Your task to perform on an android device: Search for usb-c to usb-b on walmart.com, select the first entry, add it to the cart, then select checkout. Image 0: 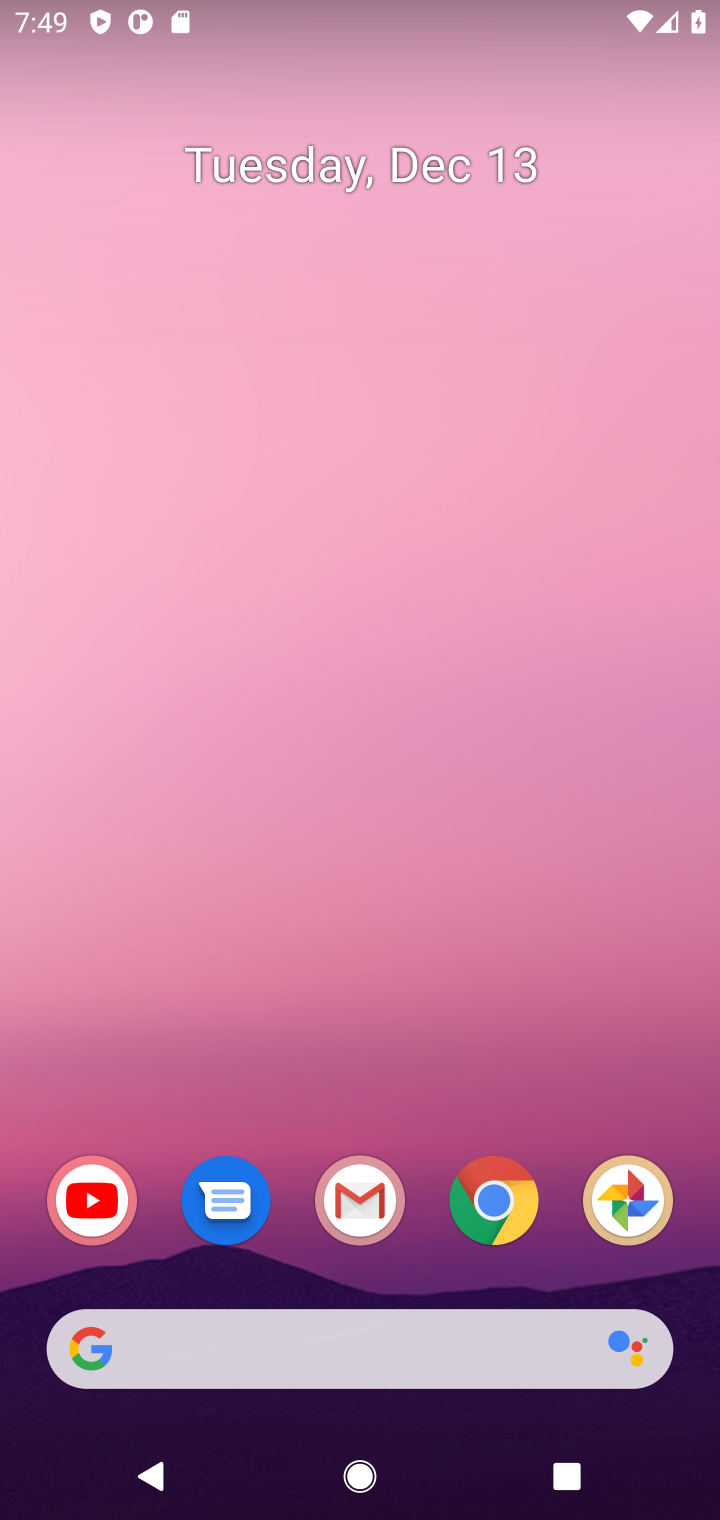
Step 0: click (346, 1347)
Your task to perform on an android device: Search for usb-c to usb-b on walmart.com, select the first entry, add it to the cart, then select checkout. Image 1: 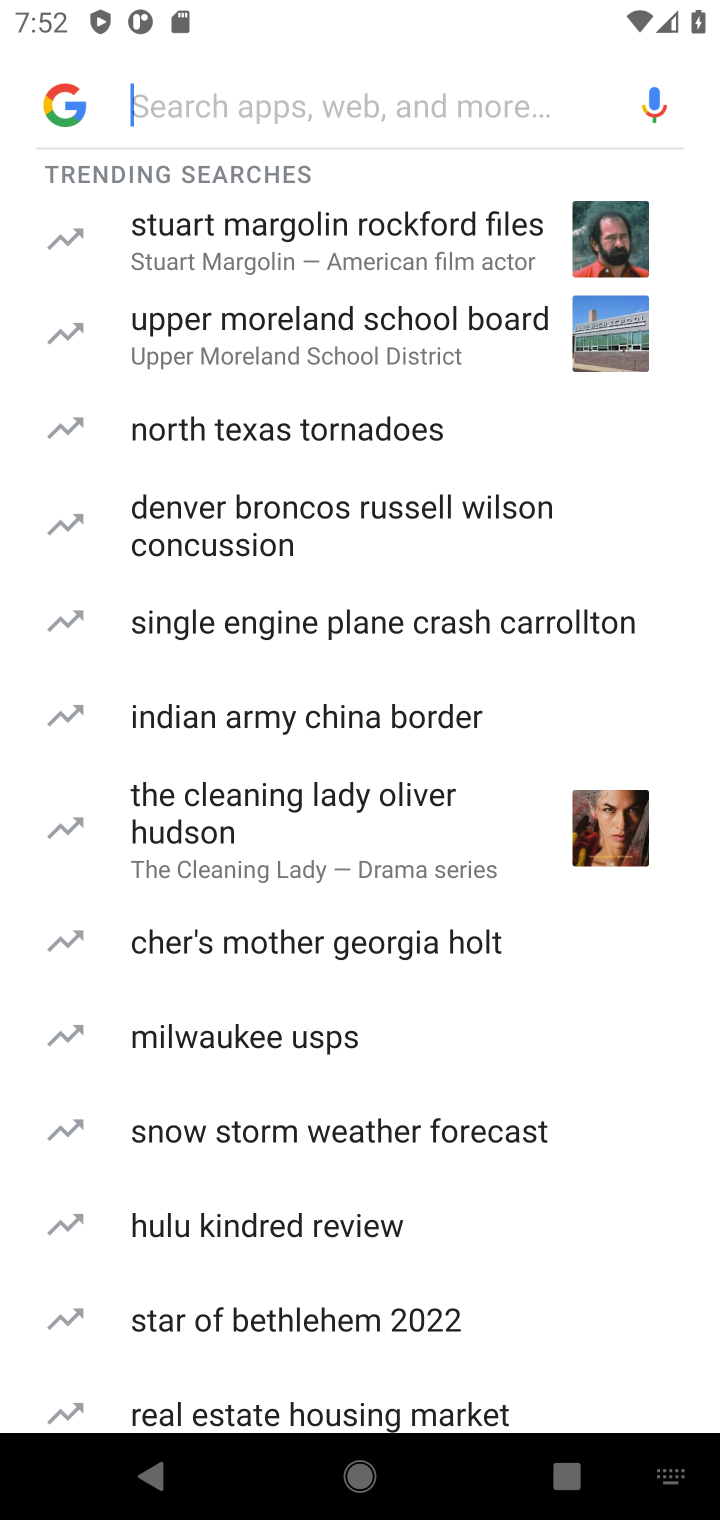
Step 1: type "walmart.com"
Your task to perform on an android device: Search for usb-c to usb-b on walmart.com, select the first entry, add it to the cart, then select checkout. Image 2: 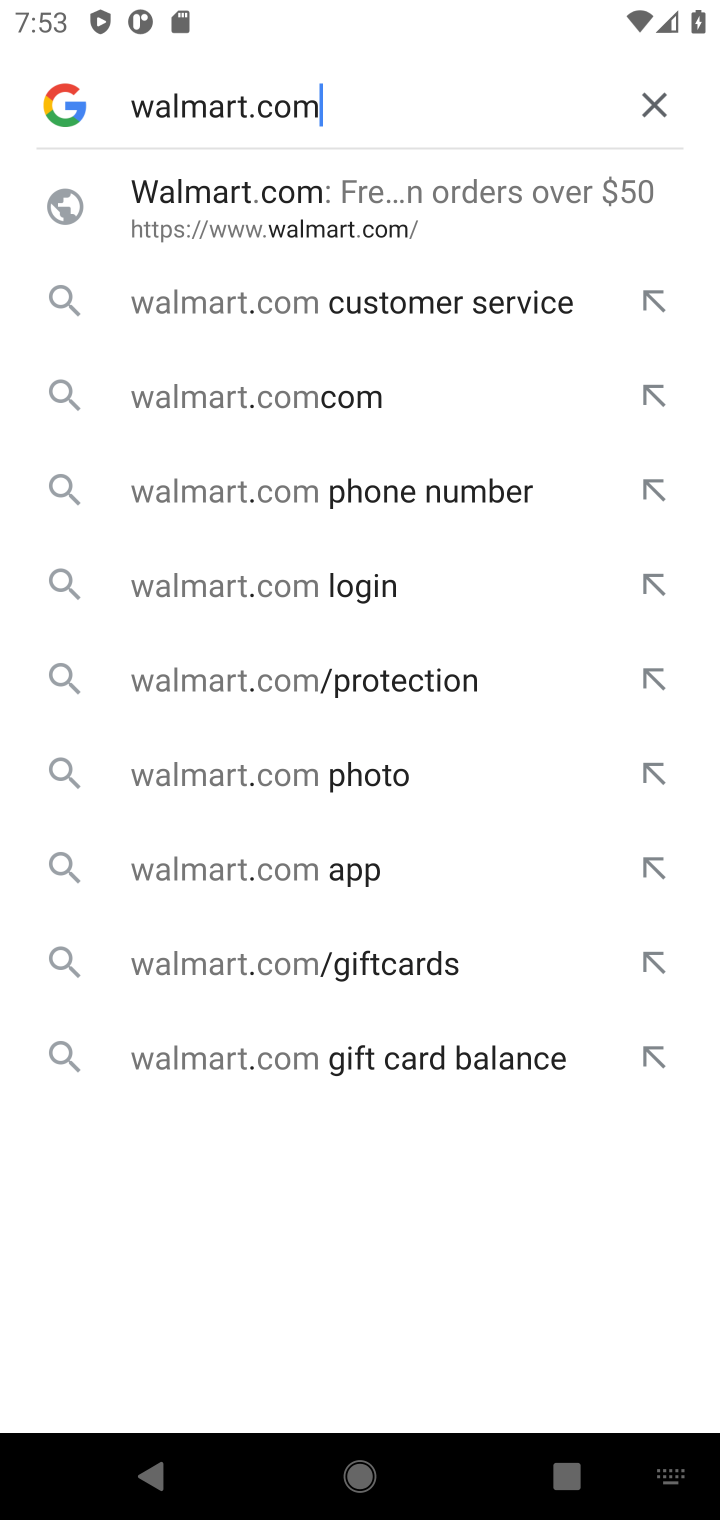
Step 2: click (363, 194)
Your task to perform on an android device: Search for usb-c to usb-b on walmart.com, select the first entry, add it to the cart, then select checkout. Image 3: 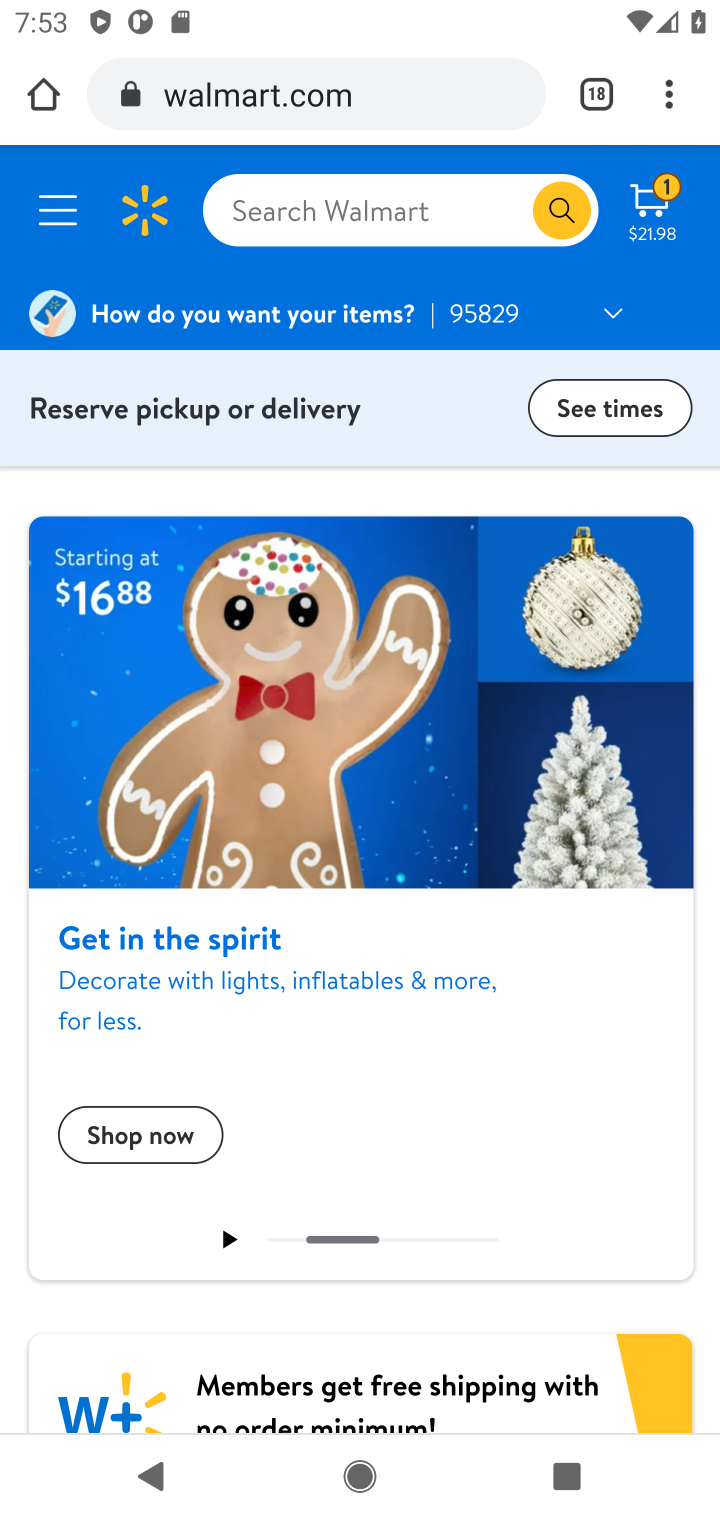
Step 3: click (409, 184)
Your task to perform on an android device: Search for usb-c to usb-b on walmart.com, select the first entry, add it to the cart, then select checkout. Image 4: 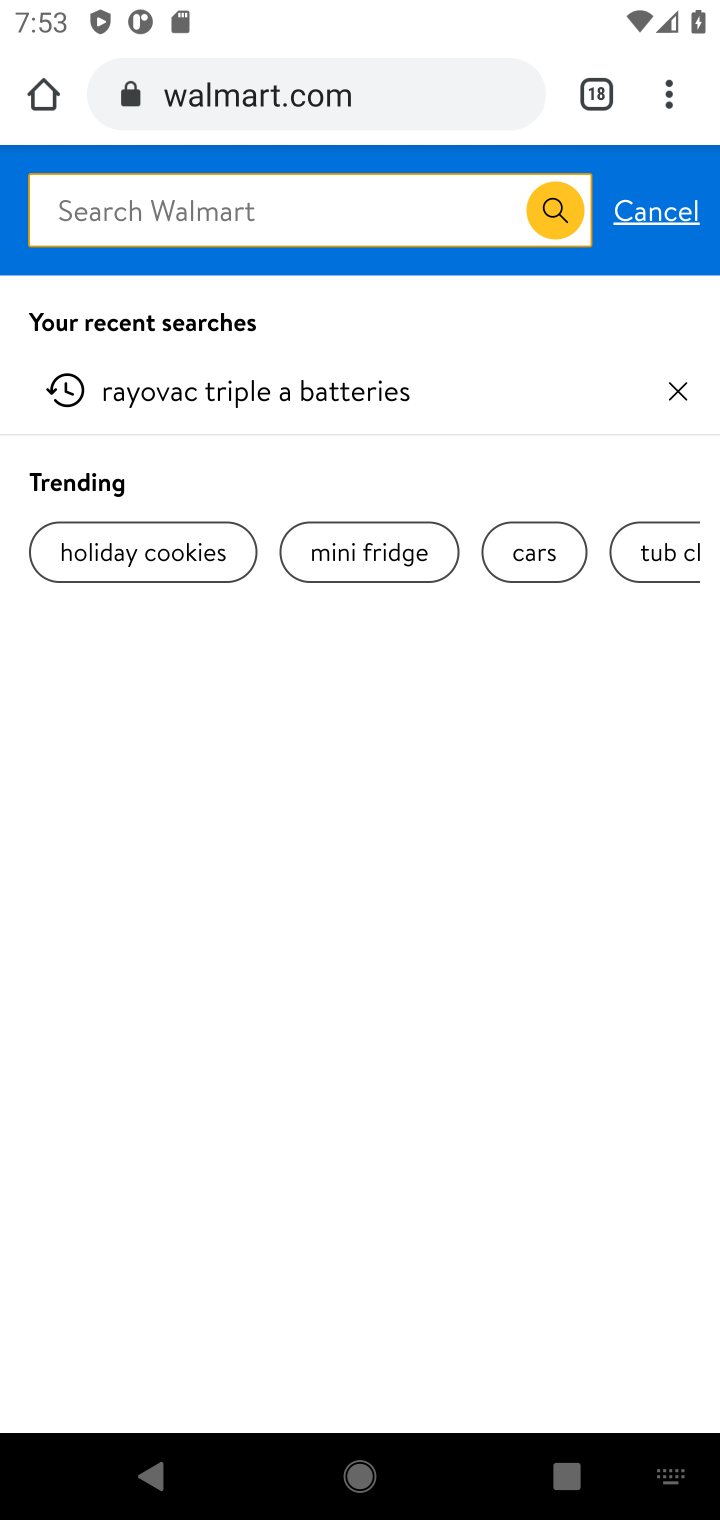
Step 4: type "usb-b "
Your task to perform on an android device: Search for usb-c to usb-b on walmart.com, select the first entry, add it to the cart, then select checkout. Image 5: 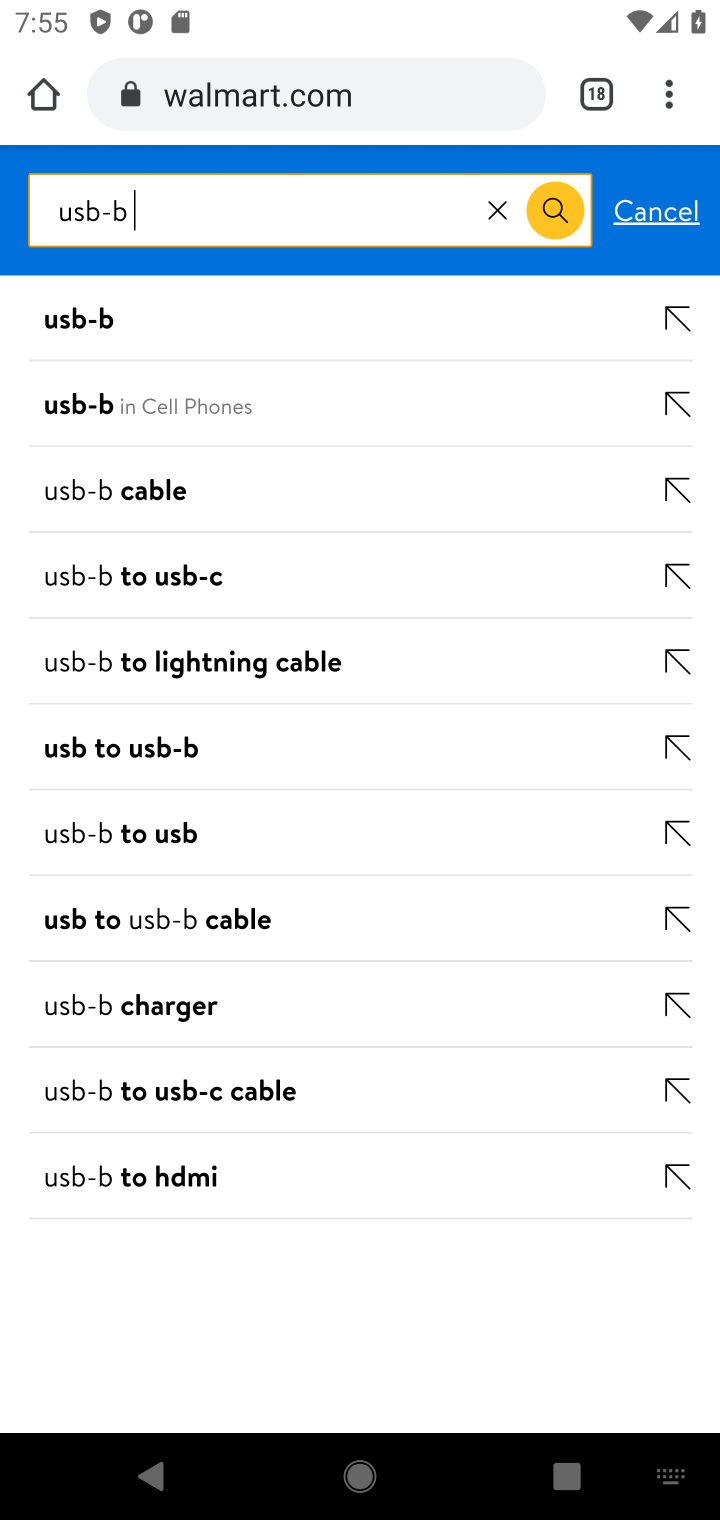
Step 5: click (493, 203)
Your task to perform on an android device: Search for usb-c to usb-b on walmart.com, select the first entry, add it to the cart, then select checkout. Image 6: 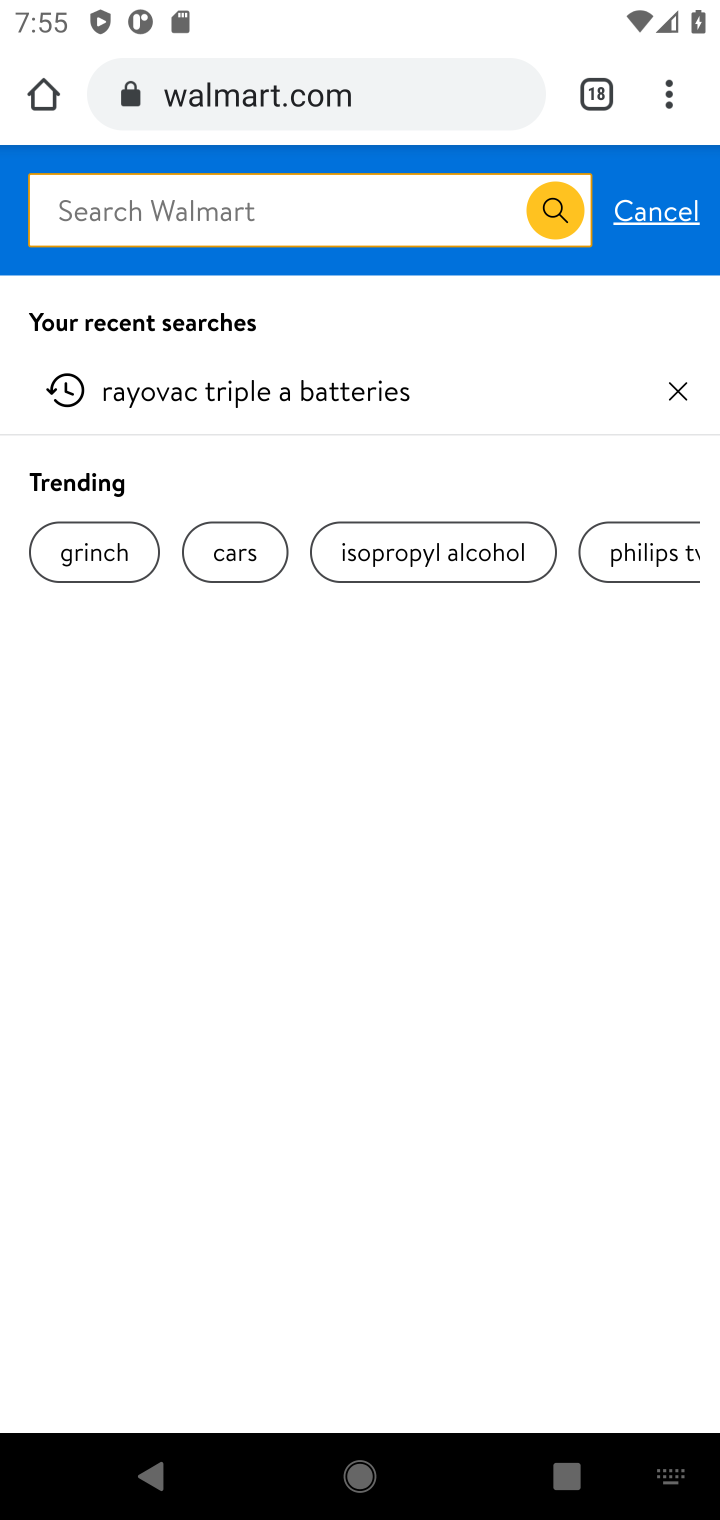
Step 6: click (387, 203)
Your task to perform on an android device: Search for usb-c to usb-b on walmart.com, select the first entry, add it to the cart, then select checkout. Image 7: 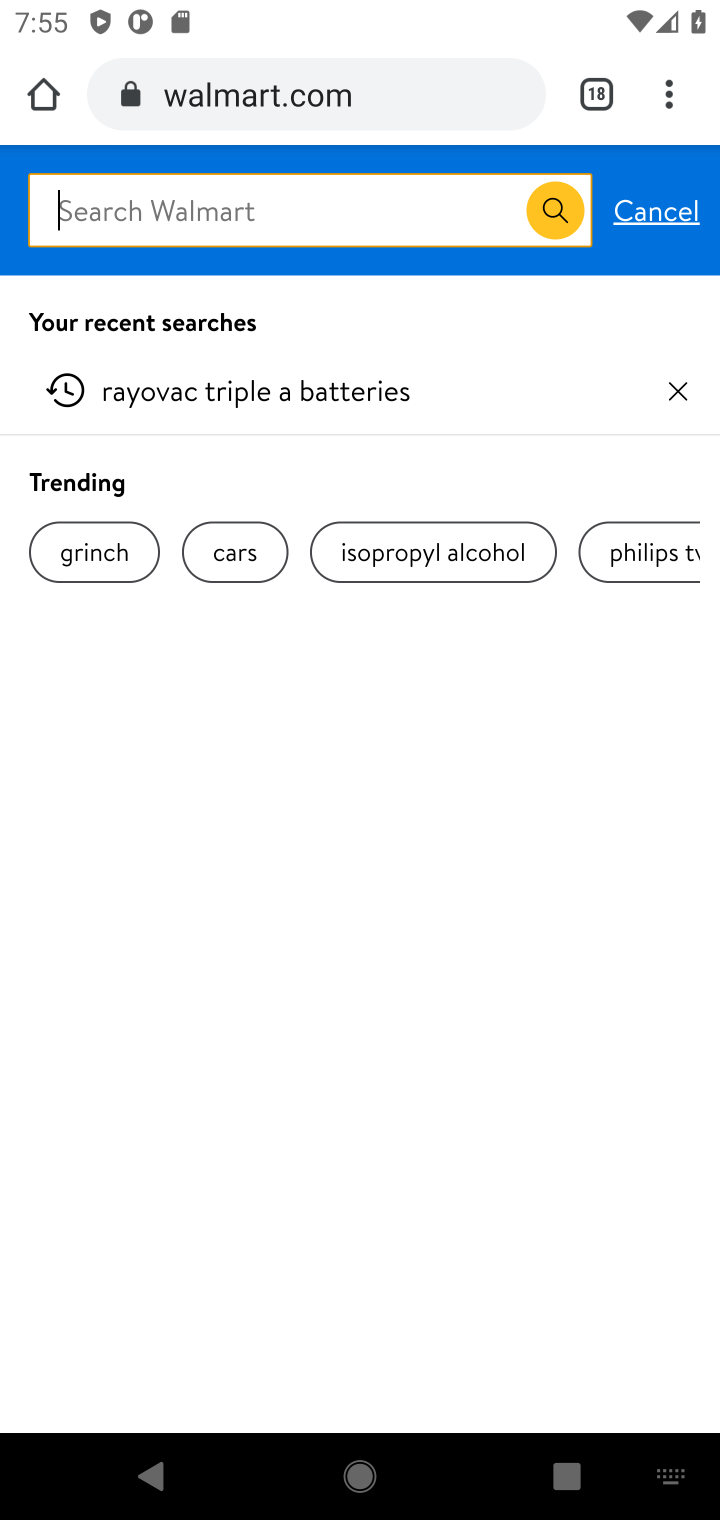
Step 7: type "usb-c to usb-b"
Your task to perform on an android device: Search for usb-c to usb-b on walmart.com, select the first entry, add it to the cart, then select checkout. Image 8: 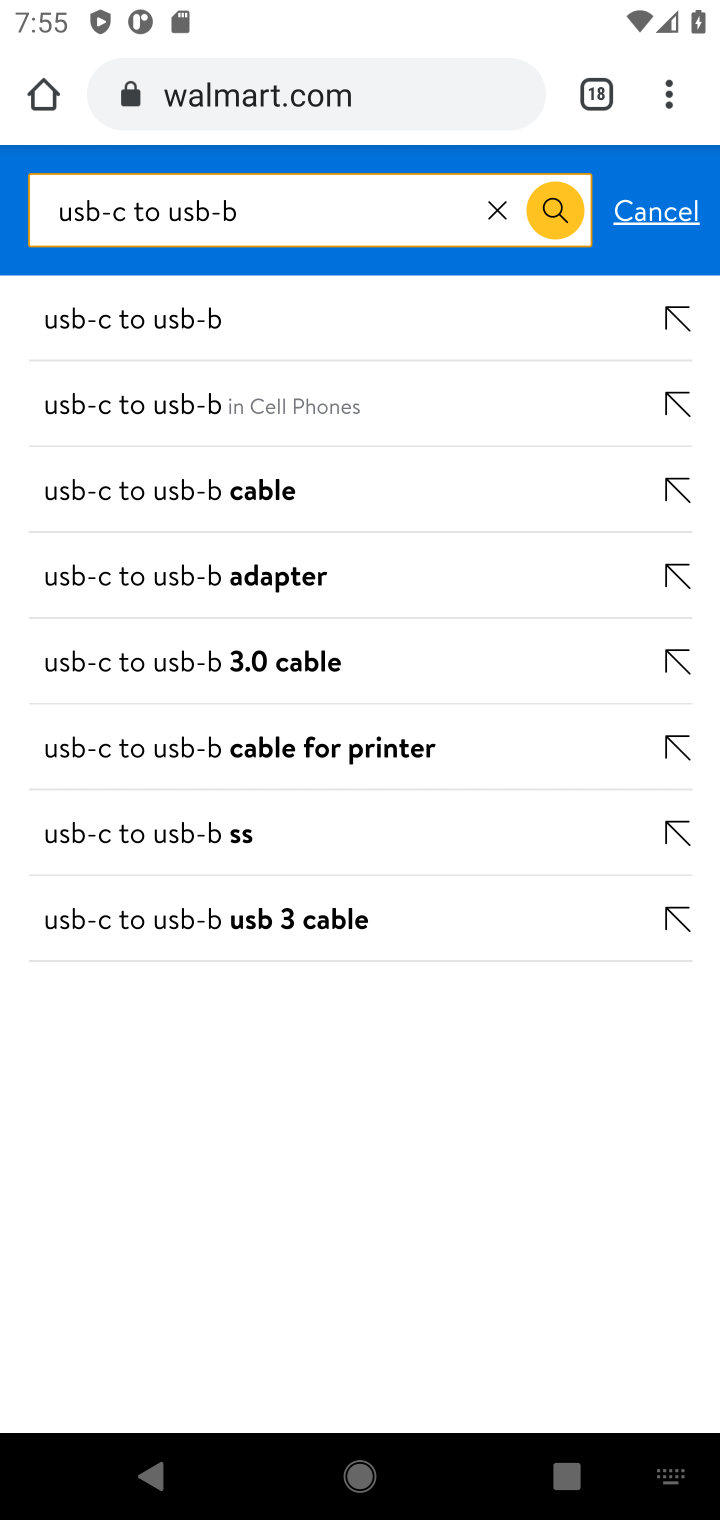
Step 8: click (213, 320)
Your task to perform on an android device: Search for usb-c to usb-b on walmart.com, select the first entry, add it to the cart, then select checkout. Image 9: 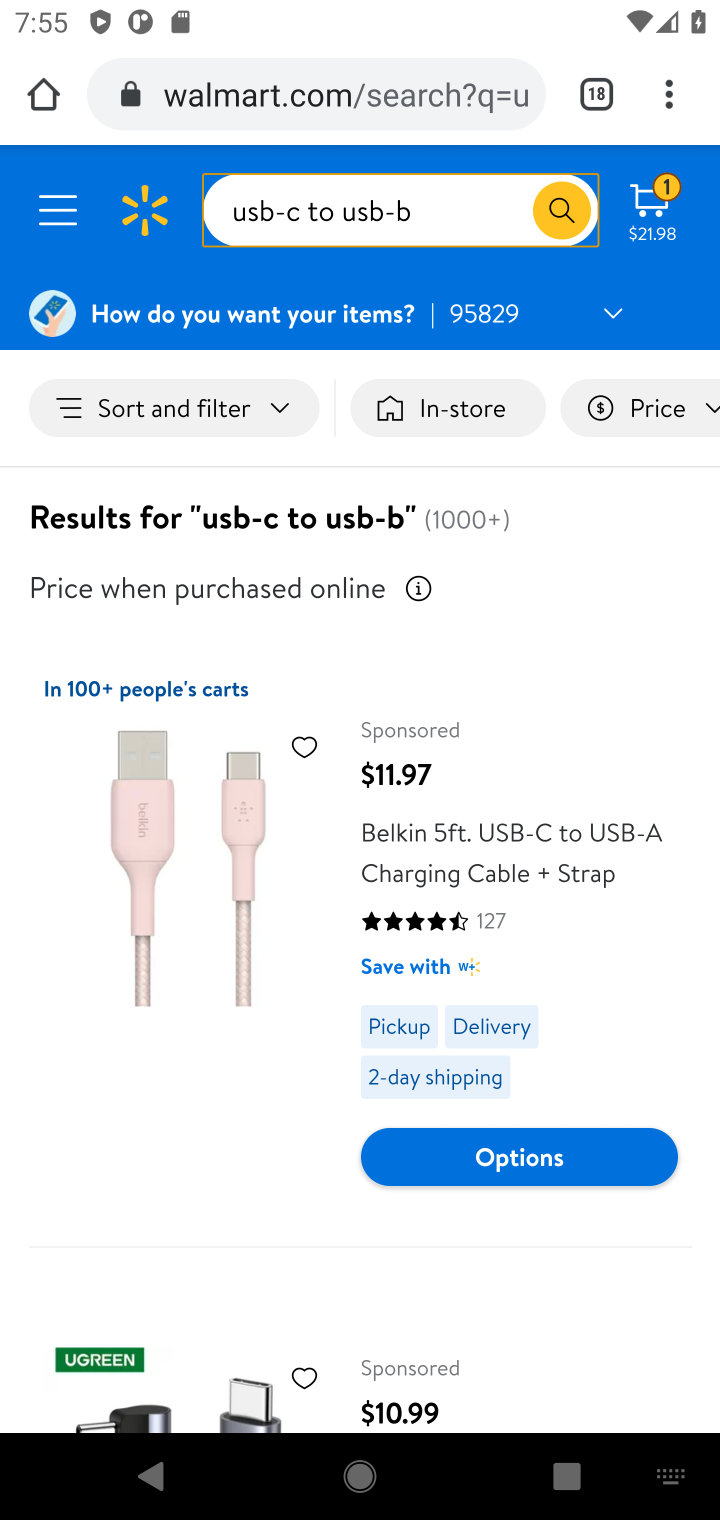
Step 9: click (524, 1165)
Your task to perform on an android device: Search for usb-c to usb-b on walmart.com, select the first entry, add it to the cart, then select checkout. Image 10: 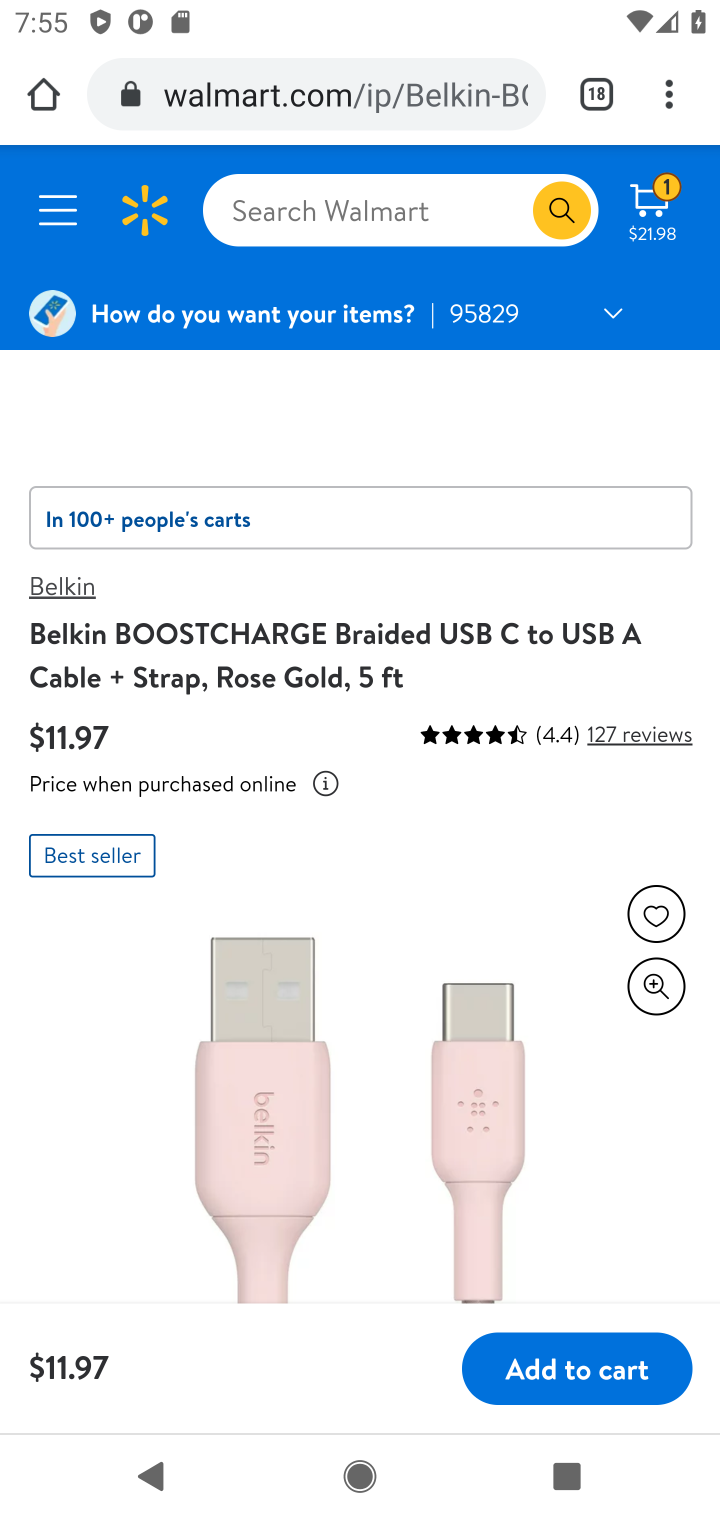
Step 10: click (545, 1359)
Your task to perform on an android device: Search for usb-c to usb-b on walmart.com, select the first entry, add it to the cart, then select checkout. Image 11: 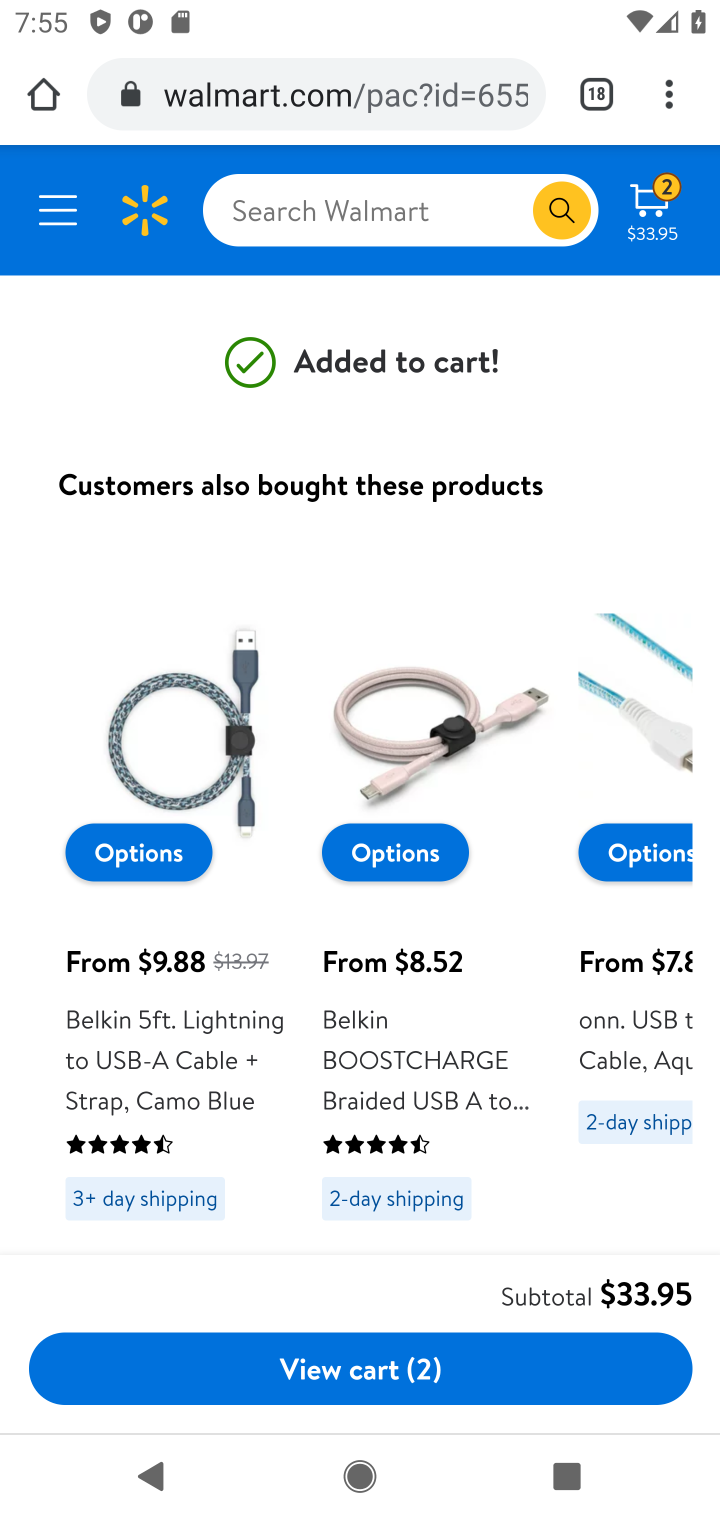
Step 11: click (648, 242)
Your task to perform on an android device: Search for usb-c to usb-b on walmart.com, select the first entry, add it to the cart, then select checkout. Image 12: 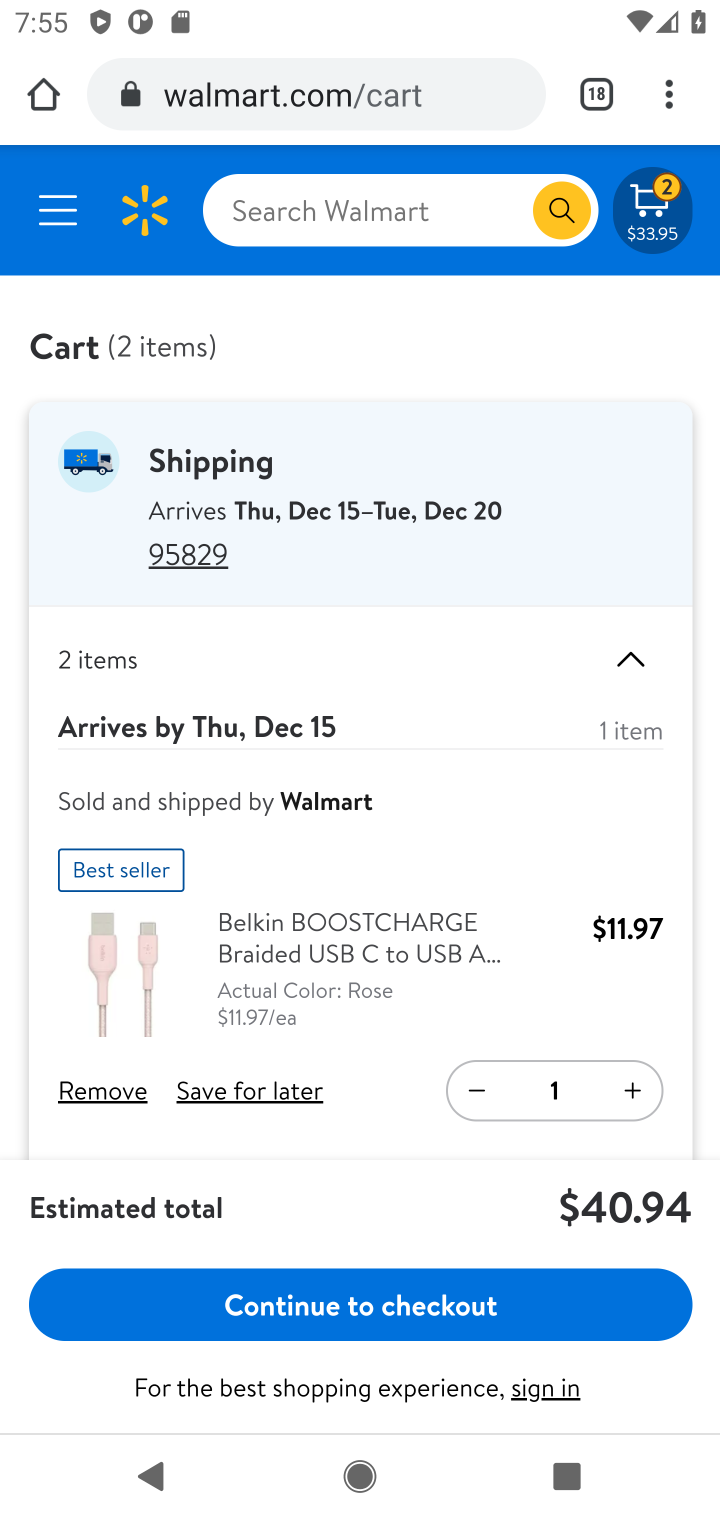
Step 12: click (380, 1301)
Your task to perform on an android device: Search for usb-c to usb-b on walmart.com, select the first entry, add it to the cart, then select checkout. Image 13: 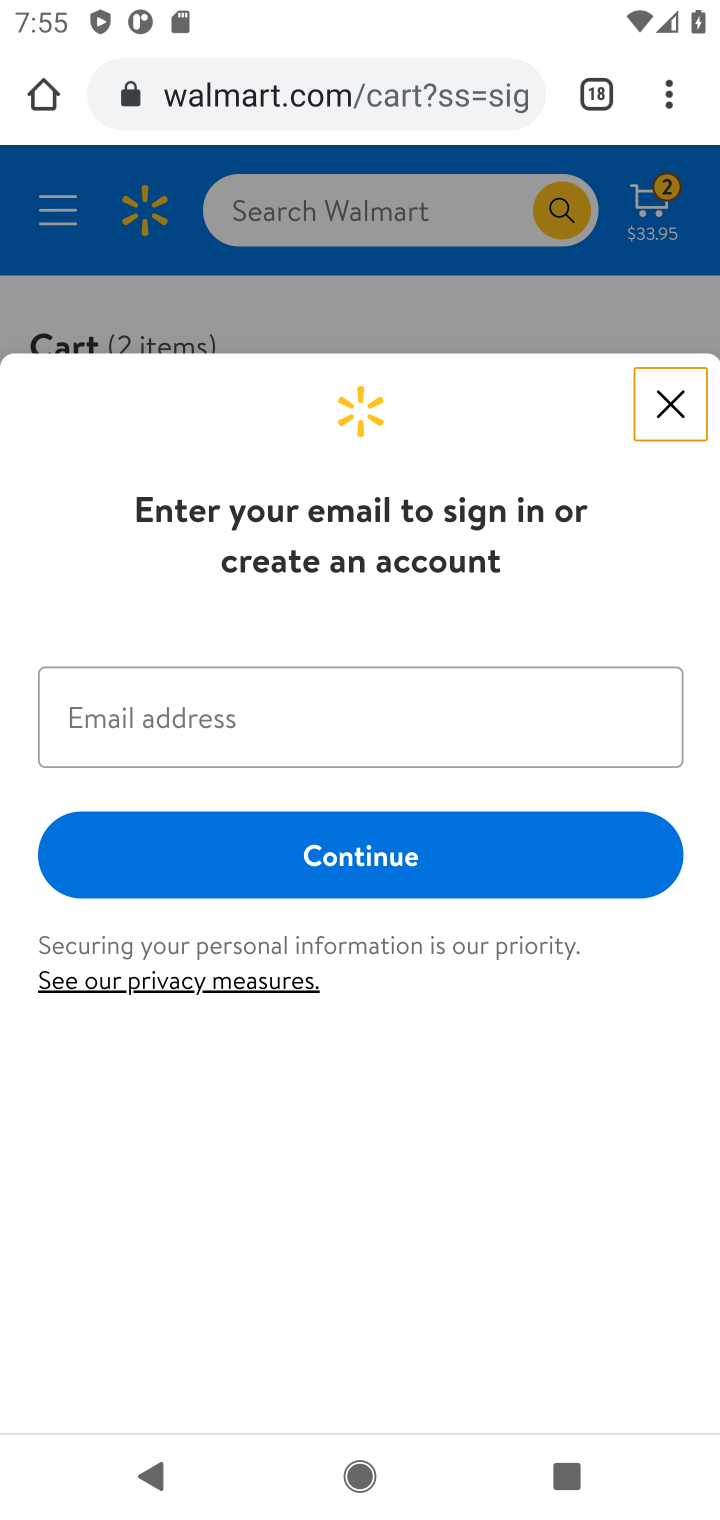
Step 13: task complete